Your task to perform on an android device: Toggle the flashlight Image 0: 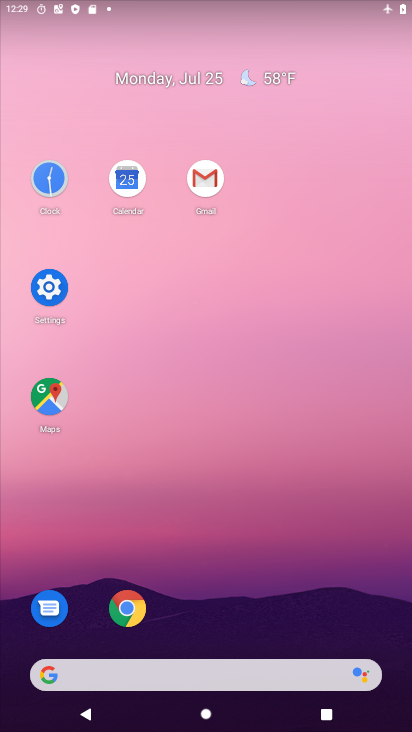
Step 0: drag from (256, 2) to (325, 359)
Your task to perform on an android device: Toggle the flashlight Image 1: 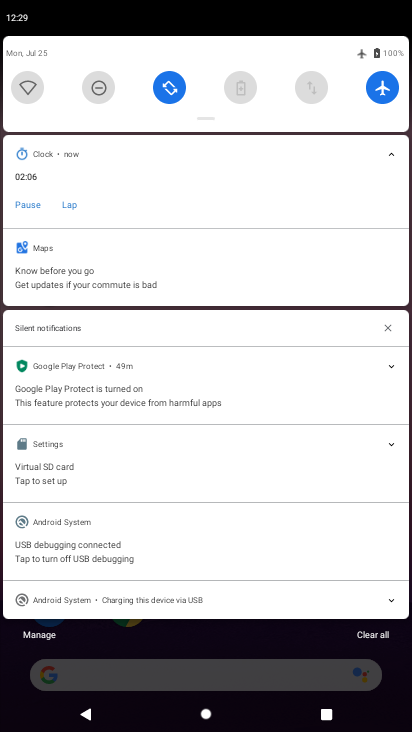
Step 1: task complete